Your task to perform on an android device: turn off airplane mode Image 0: 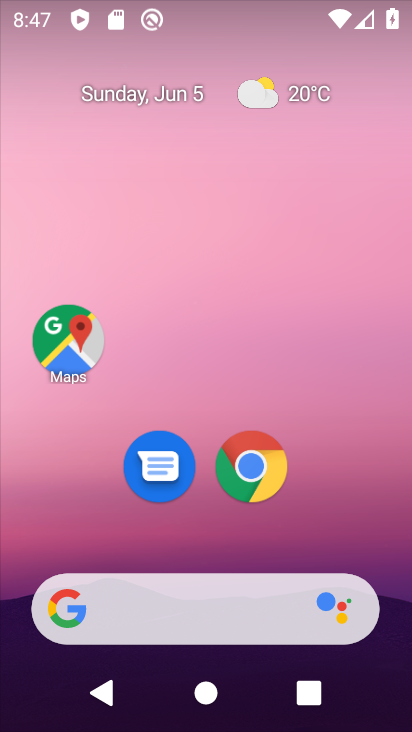
Step 0: drag from (199, 546) to (235, 0)
Your task to perform on an android device: turn off airplane mode Image 1: 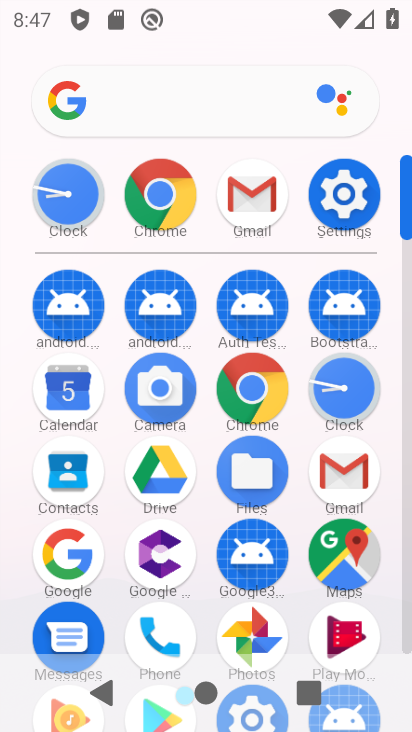
Step 1: click (341, 207)
Your task to perform on an android device: turn off airplane mode Image 2: 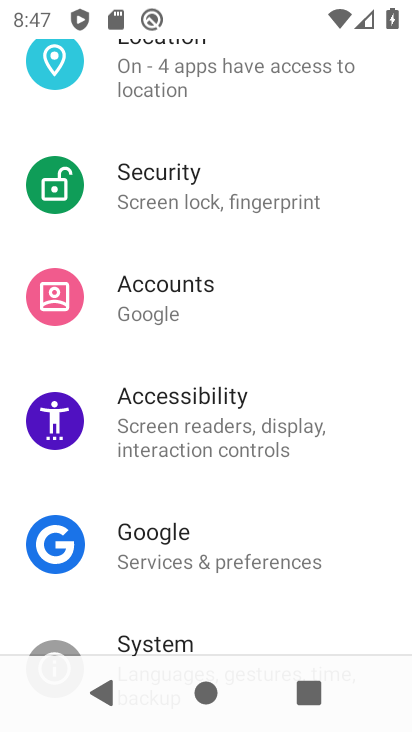
Step 2: drag from (239, 218) to (240, 628)
Your task to perform on an android device: turn off airplane mode Image 3: 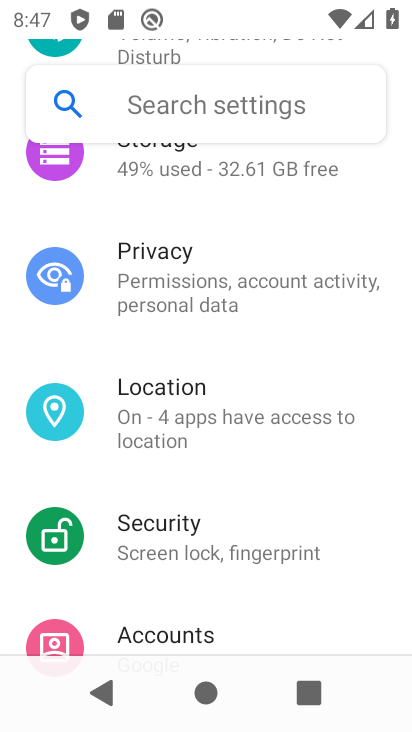
Step 3: drag from (243, 275) to (190, 676)
Your task to perform on an android device: turn off airplane mode Image 4: 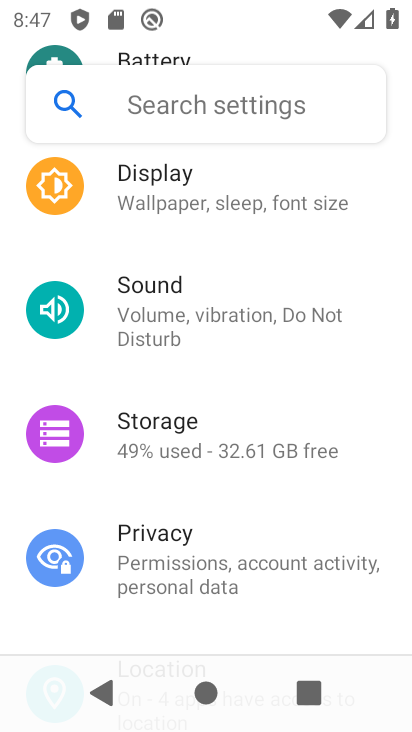
Step 4: drag from (227, 342) to (181, 612)
Your task to perform on an android device: turn off airplane mode Image 5: 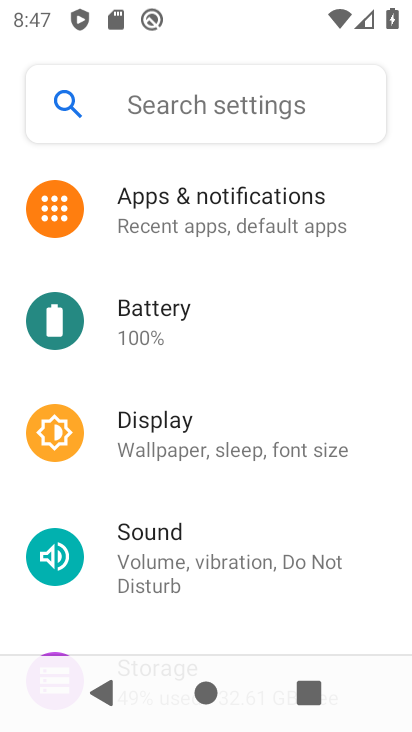
Step 5: click (222, 226)
Your task to perform on an android device: turn off airplane mode Image 6: 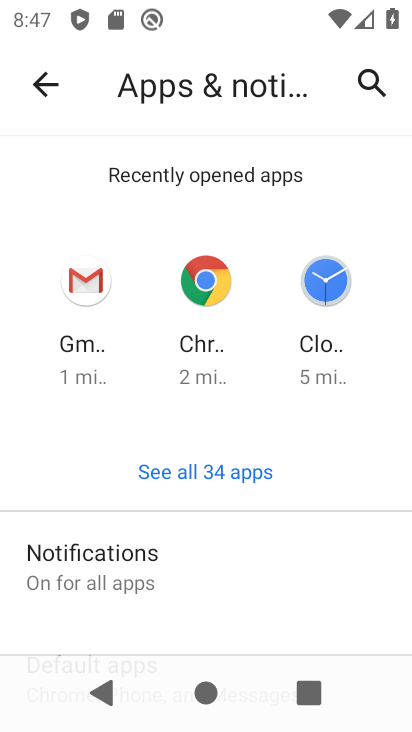
Step 6: drag from (280, 600) to (281, 185)
Your task to perform on an android device: turn off airplane mode Image 7: 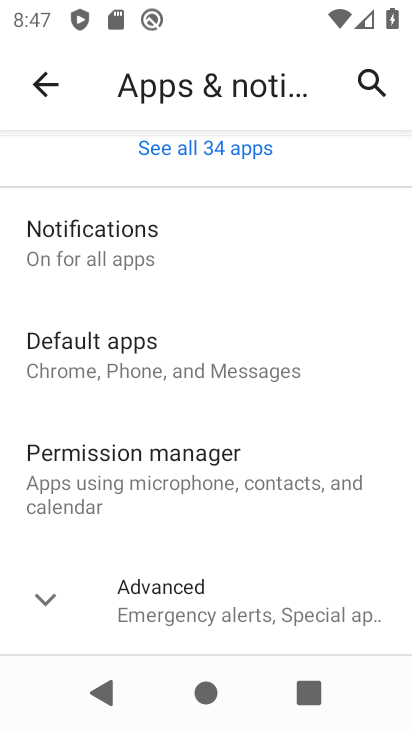
Step 7: click (37, 88)
Your task to perform on an android device: turn off airplane mode Image 8: 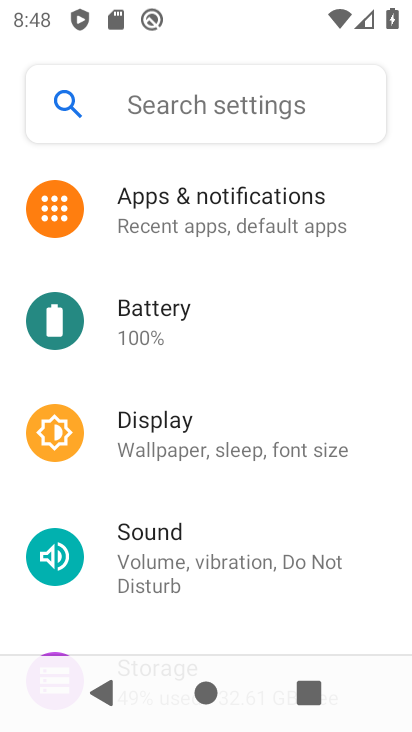
Step 8: drag from (339, 324) to (164, 725)
Your task to perform on an android device: turn off airplane mode Image 9: 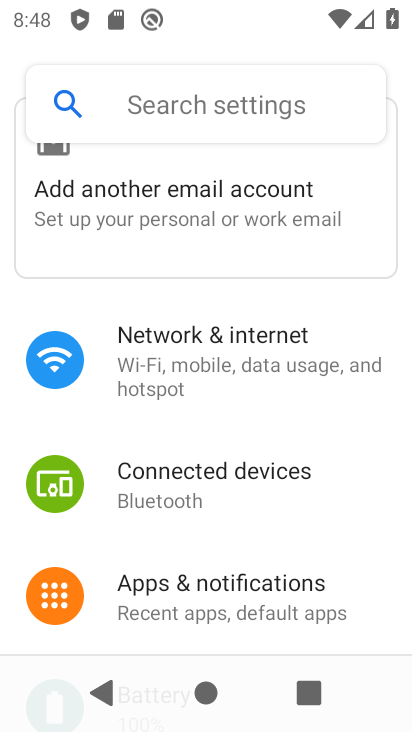
Step 9: click (182, 395)
Your task to perform on an android device: turn off airplane mode Image 10: 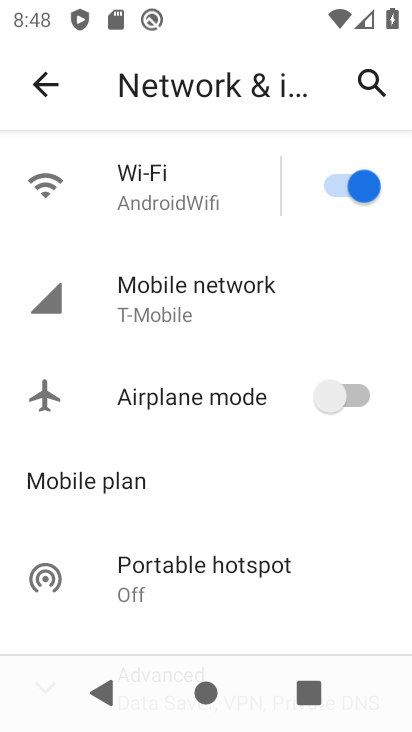
Step 10: task complete